Your task to perform on an android device: Open Chrome and go to the settings page Image 0: 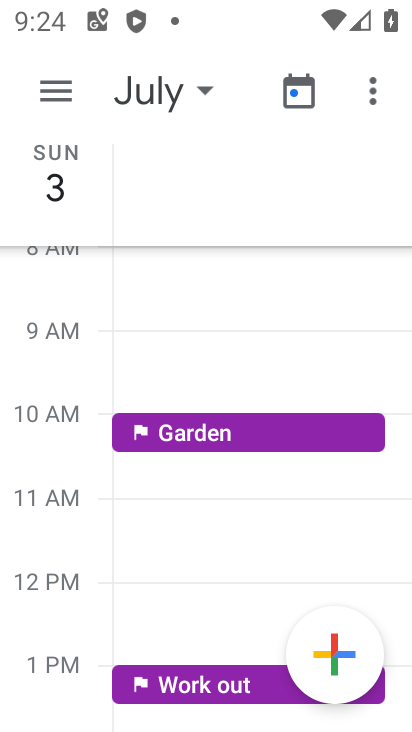
Step 0: press home button
Your task to perform on an android device: Open Chrome and go to the settings page Image 1: 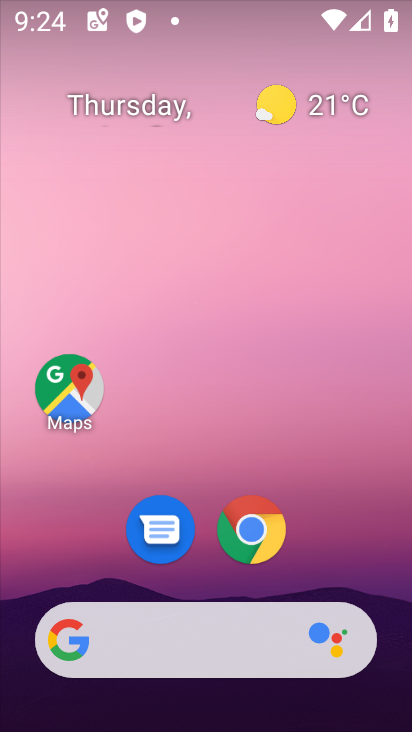
Step 1: click (263, 514)
Your task to perform on an android device: Open Chrome and go to the settings page Image 2: 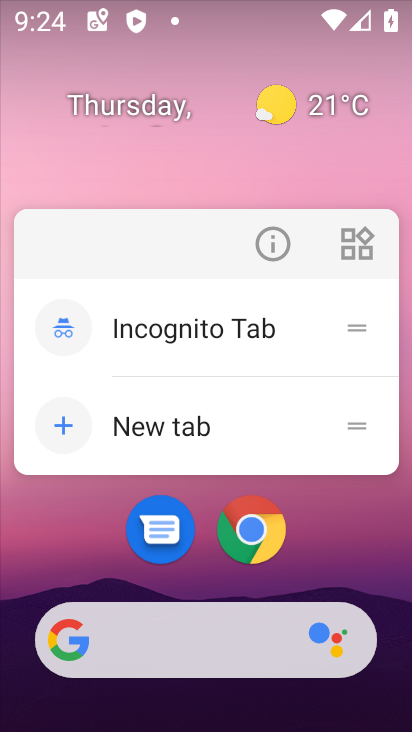
Step 2: click (263, 514)
Your task to perform on an android device: Open Chrome and go to the settings page Image 3: 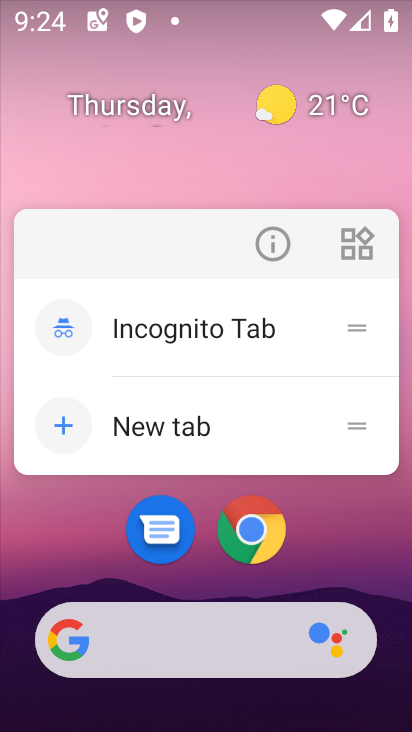
Step 3: click (263, 514)
Your task to perform on an android device: Open Chrome and go to the settings page Image 4: 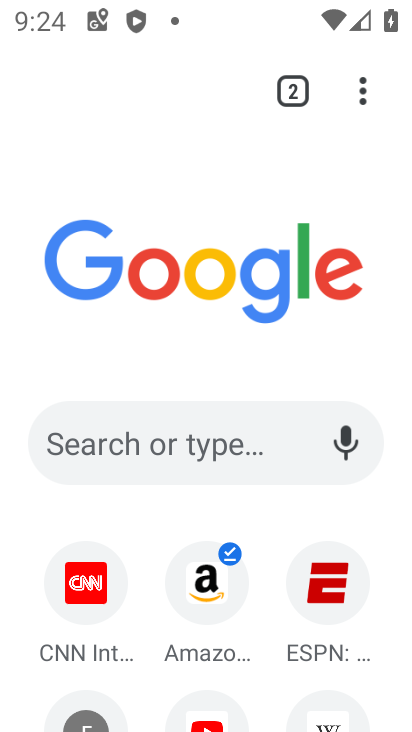
Step 4: click (361, 90)
Your task to perform on an android device: Open Chrome and go to the settings page Image 5: 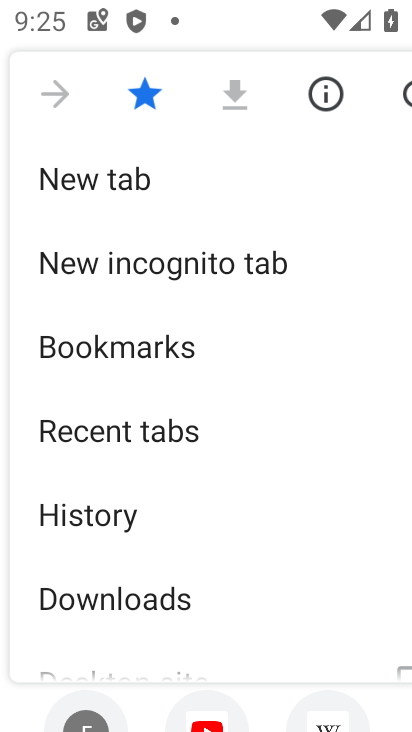
Step 5: drag from (235, 630) to (378, 6)
Your task to perform on an android device: Open Chrome and go to the settings page Image 6: 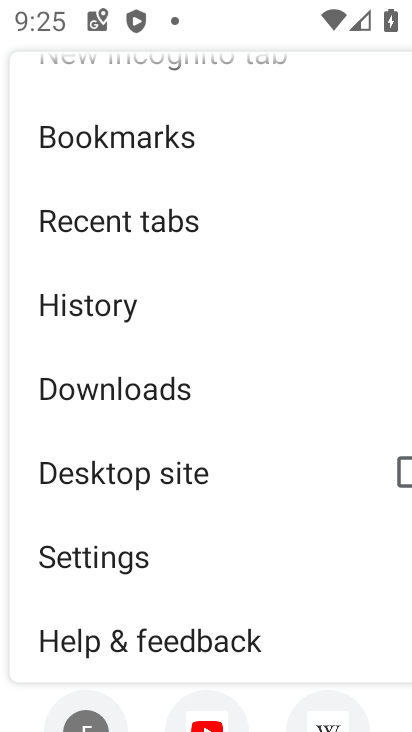
Step 6: click (74, 569)
Your task to perform on an android device: Open Chrome and go to the settings page Image 7: 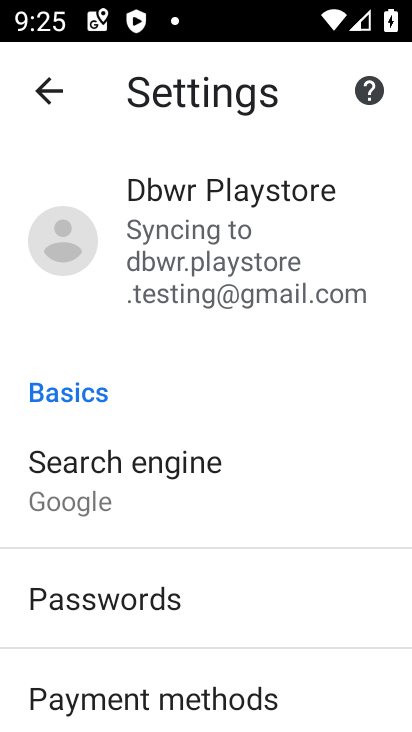
Step 7: task complete